Your task to perform on an android device: Set the phone to "Do not disturb". Image 0: 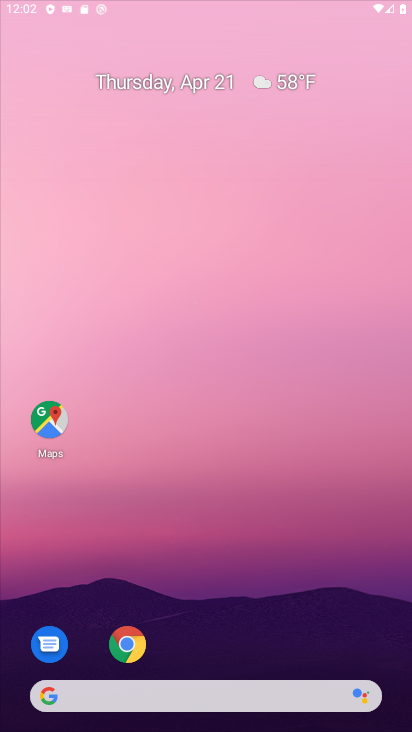
Step 0: drag from (195, 304) to (203, 116)
Your task to perform on an android device: Set the phone to "Do not disturb". Image 1: 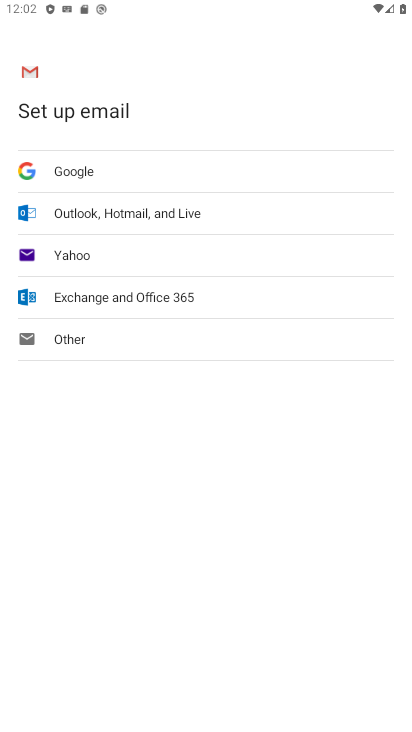
Step 1: press home button
Your task to perform on an android device: Set the phone to "Do not disturb". Image 2: 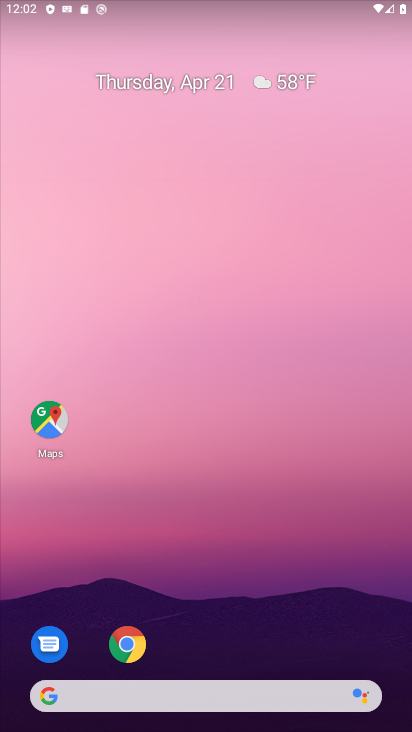
Step 2: drag from (166, 1) to (210, 289)
Your task to perform on an android device: Set the phone to "Do not disturb". Image 3: 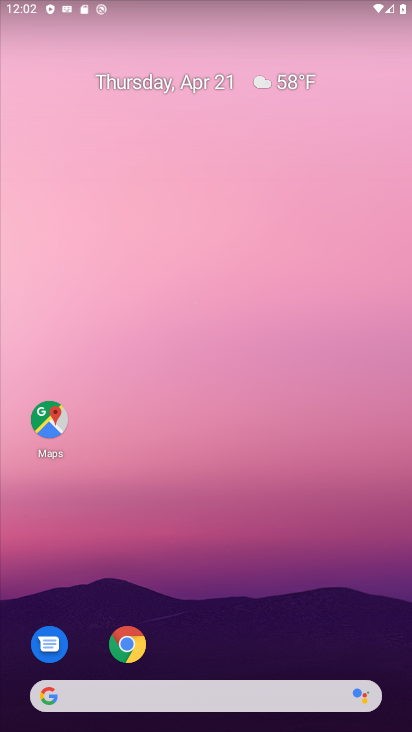
Step 3: drag from (127, 4) to (146, 491)
Your task to perform on an android device: Set the phone to "Do not disturb". Image 4: 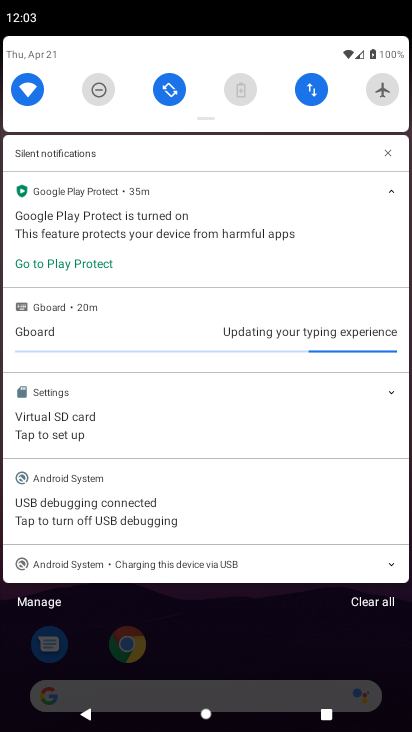
Step 4: click (99, 94)
Your task to perform on an android device: Set the phone to "Do not disturb". Image 5: 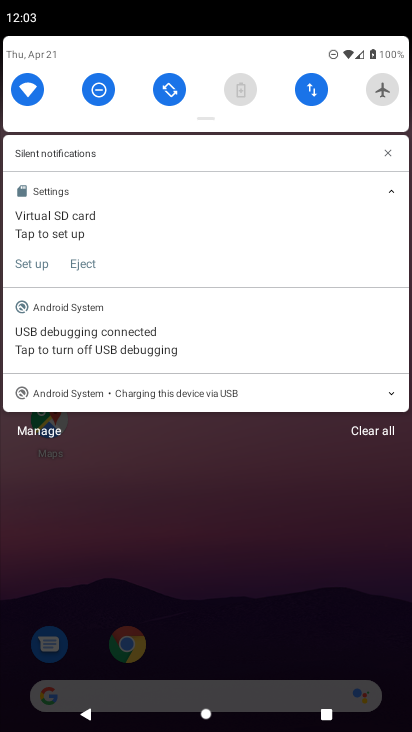
Step 5: task complete